Your task to perform on an android device: Search for vegetarian restaurants on Maps Image 0: 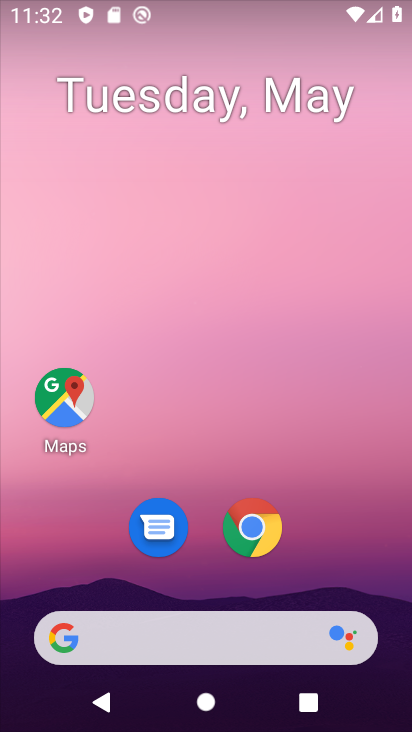
Step 0: drag from (203, 548) to (305, 18)
Your task to perform on an android device: Search for vegetarian restaurants on Maps Image 1: 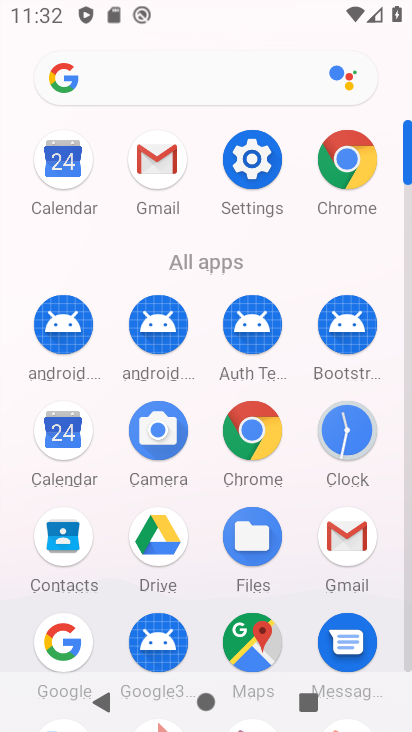
Step 1: click (236, 625)
Your task to perform on an android device: Search for vegetarian restaurants on Maps Image 2: 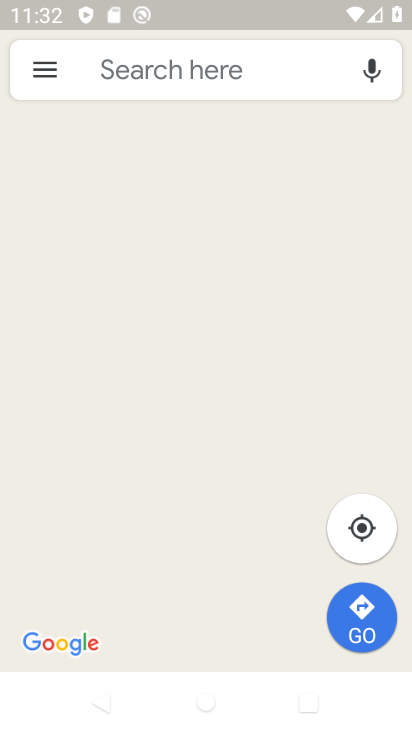
Step 2: click (195, 66)
Your task to perform on an android device: Search for vegetarian restaurants on Maps Image 3: 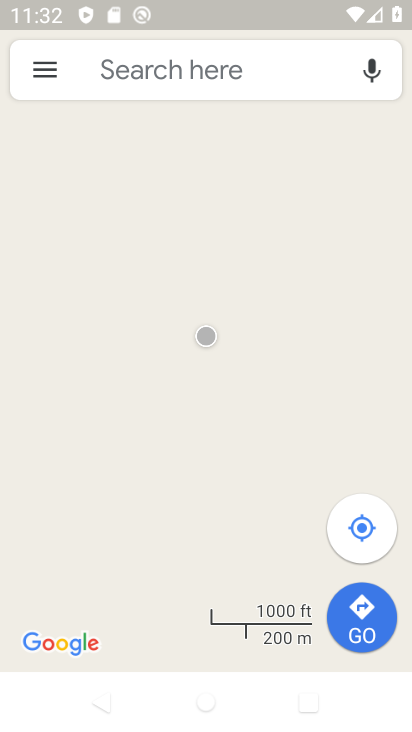
Step 3: click (194, 75)
Your task to perform on an android device: Search for vegetarian restaurants on Maps Image 4: 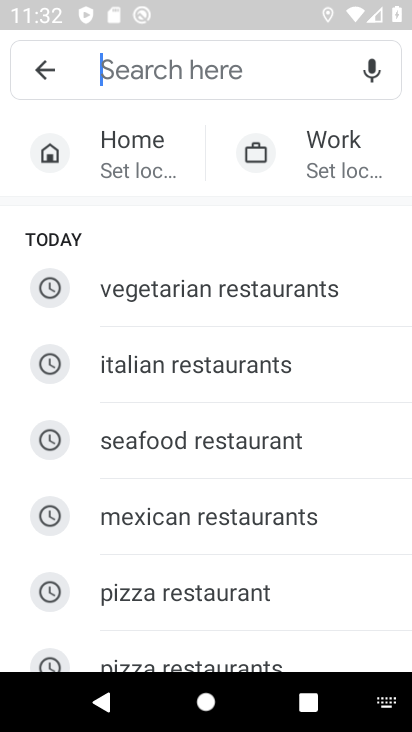
Step 4: type "vegetarian restaur"
Your task to perform on an android device: Search for vegetarian restaurants on Maps Image 5: 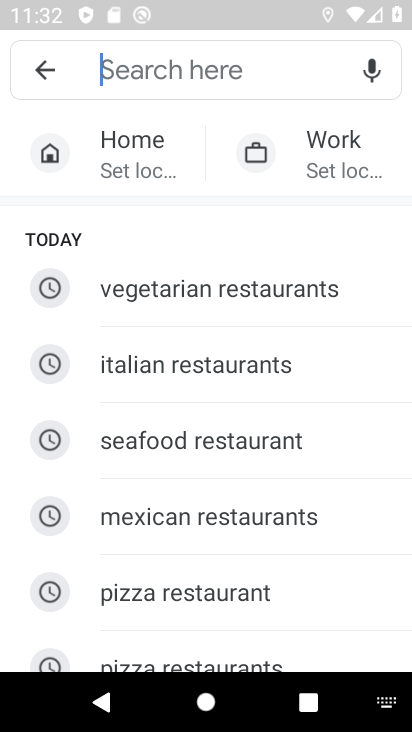
Step 5: click (236, 296)
Your task to perform on an android device: Search for vegetarian restaurants on Maps Image 6: 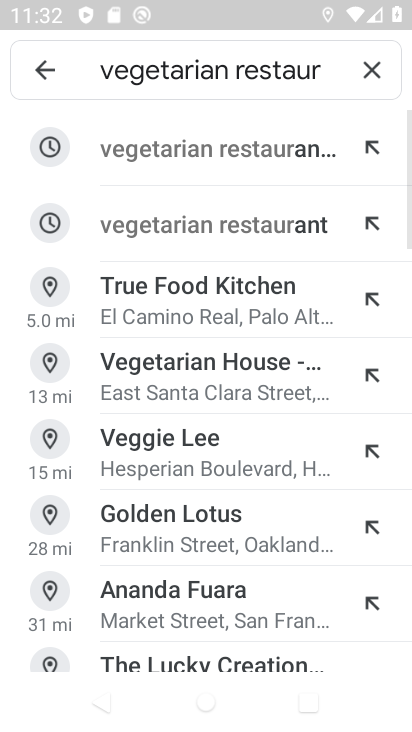
Step 6: click (249, 163)
Your task to perform on an android device: Search for vegetarian restaurants on Maps Image 7: 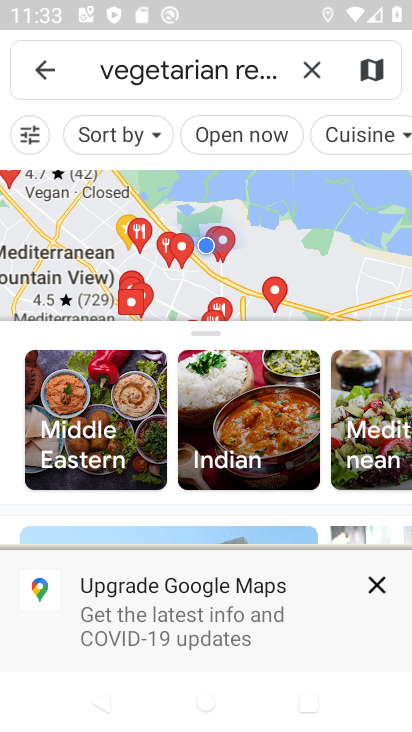
Step 7: task complete